Your task to perform on an android device: turn on javascript in the chrome app Image 0: 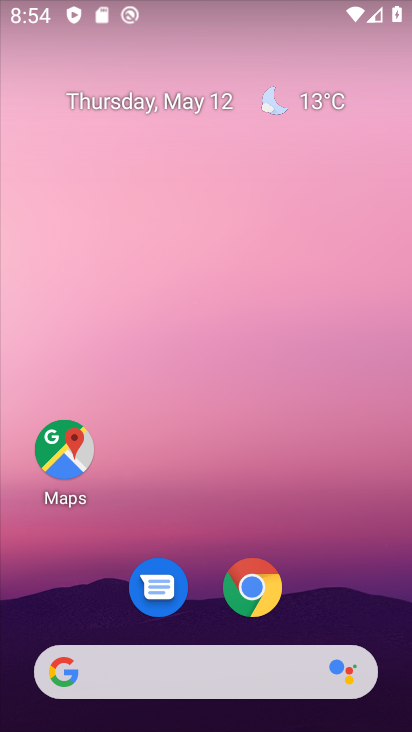
Step 0: drag from (337, 594) to (350, 5)
Your task to perform on an android device: turn on javascript in the chrome app Image 1: 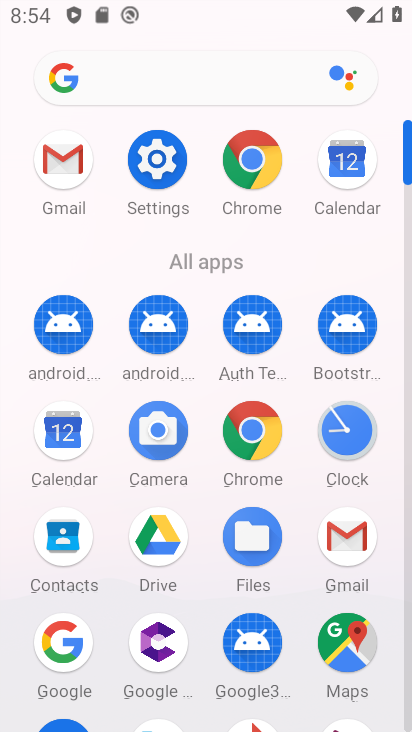
Step 1: click (266, 165)
Your task to perform on an android device: turn on javascript in the chrome app Image 2: 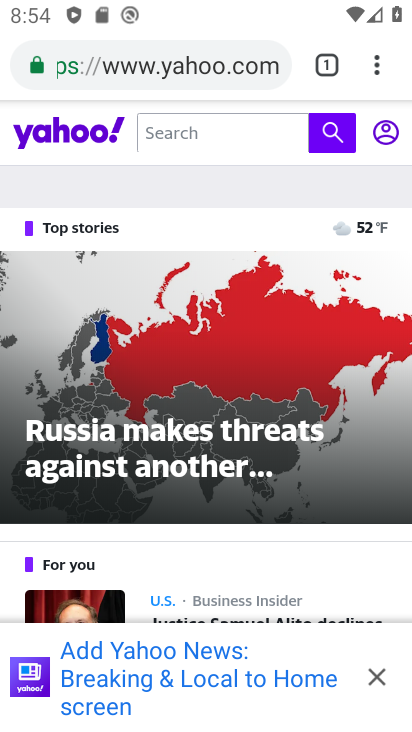
Step 2: drag from (374, 71) to (135, 644)
Your task to perform on an android device: turn on javascript in the chrome app Image 3: 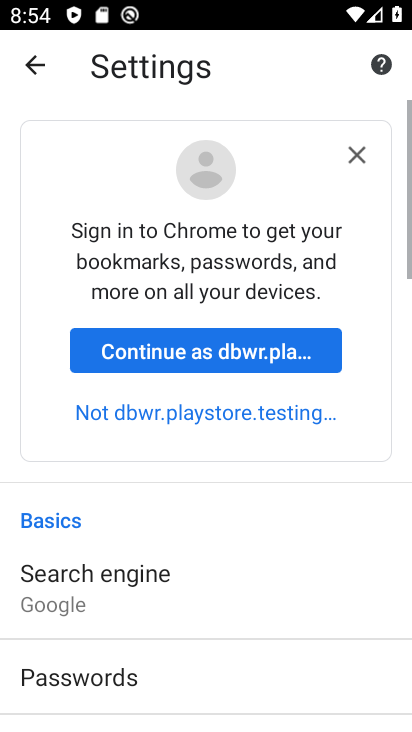
Step 3: drag from (135, 644) to (156, 198)
Your task to perform on an android device: turn on javascript in the chrome app Image 4: 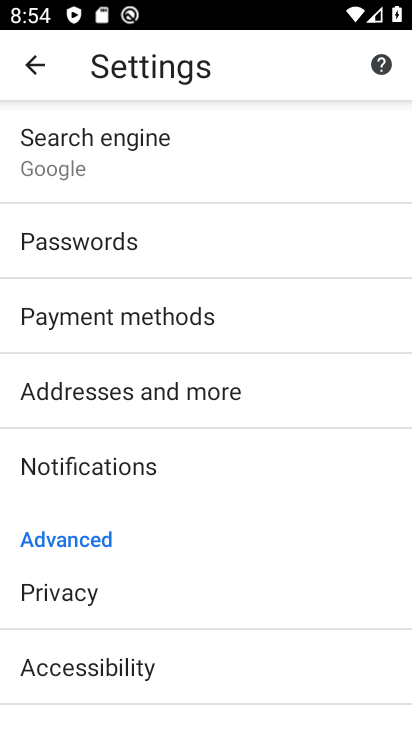
Step 4: drag from (162, 644) to (153, 268)
Your task to perform on an android device: turn on javascript in the chrome app Image 5: 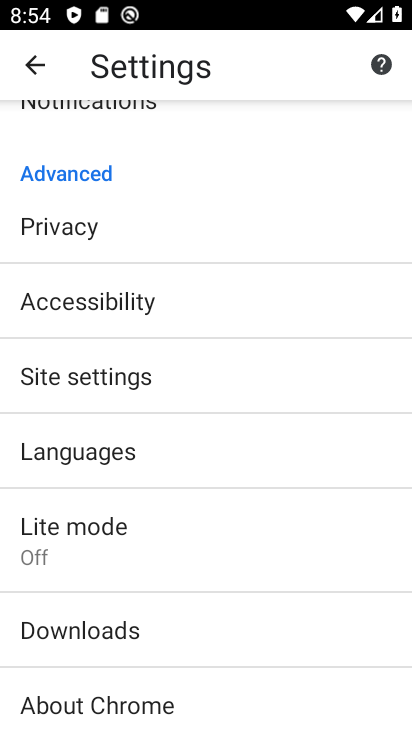
Step 5: click (124, 363)
Your task to perform on an android device: turn on javascript in the chrome app Image 6: 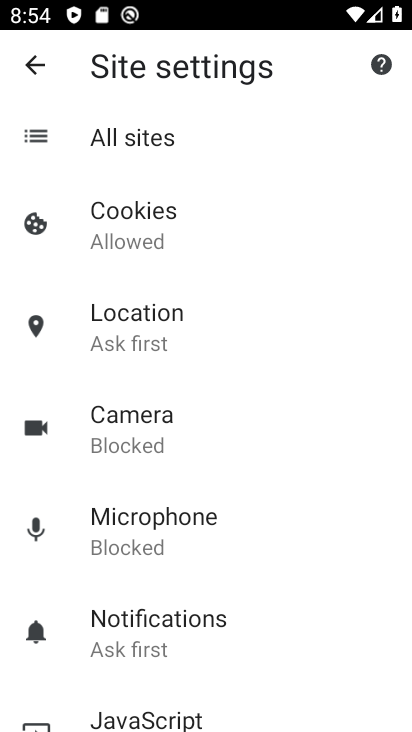
Step 6: drag from (230, 644) to (174, 290)
Your task to perform on an android device: turn on javascript in the chrome app Image 7: 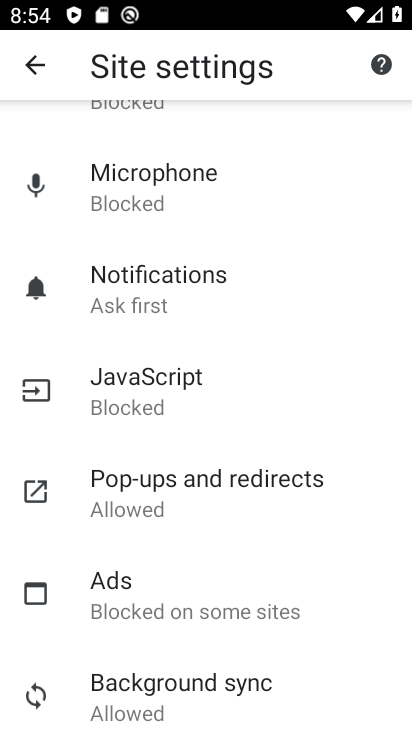
Step 7: click (188, 392)
Your task to perform on an android device: turn on javascript in the chrome app Image 8: 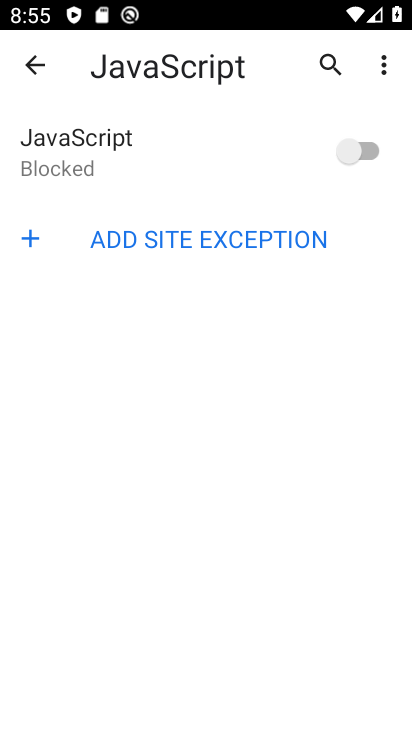
Step 8: click (363, 139)
Your task to perform on an android device: turn on javascript in the chrome app Image 9: 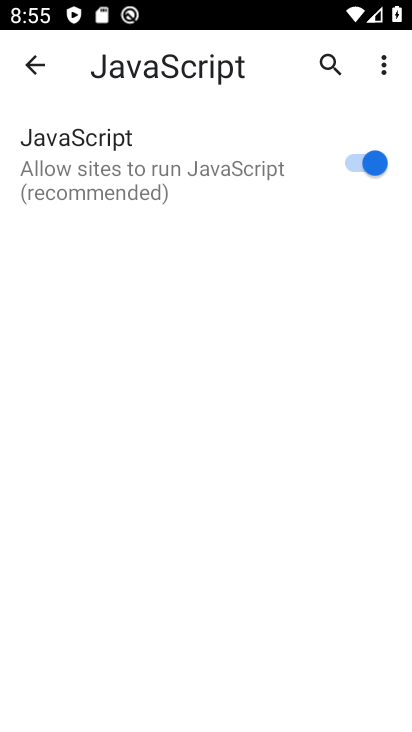
Step 9: task complete